Your task to perform on an android device: turn on showing notifications on the lock screen Image 0: 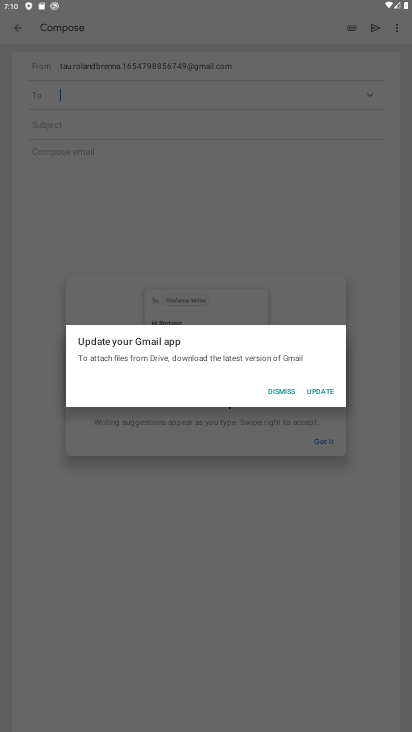
Step 0: press home button
Your task to perform on an android device: turn on showing notifications on the lock screen Image 1: 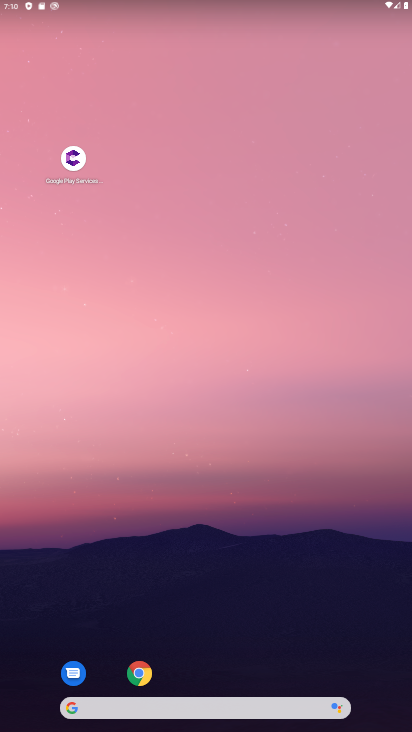
Step 1: drag from (210, 634) to (235, 85)
Your task to perform on an android device: turn on showing notifications on the lock screen Image 2: 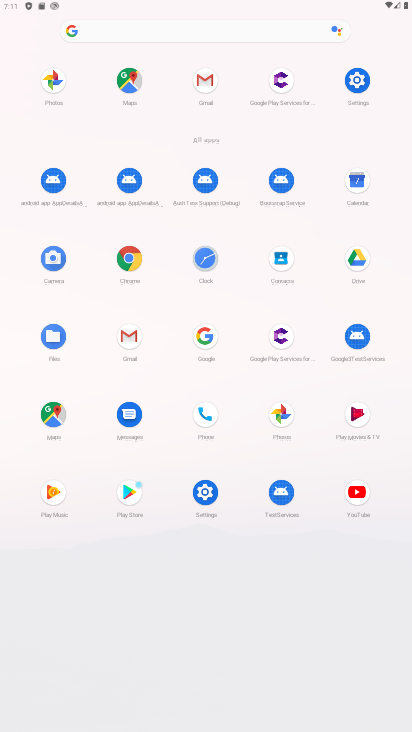
Step 2: click (359, 83)
Your task to perform on an android device: turn on showing notifications on the lock screen Image 3: 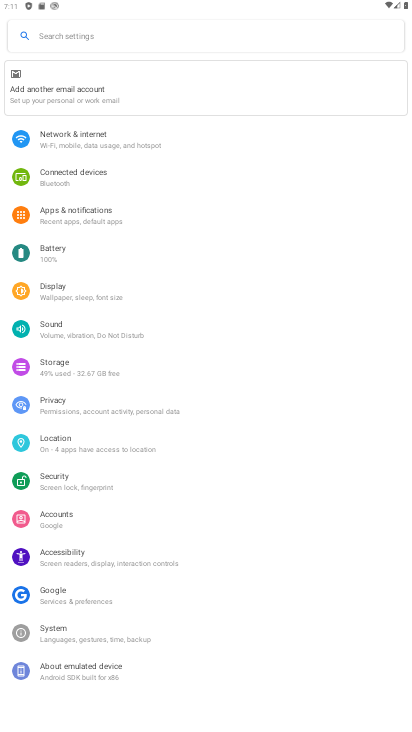
Step 3: click (79, 213)
Your task to perform on an android device: turn on showing notifications on the lock screen Image 4: 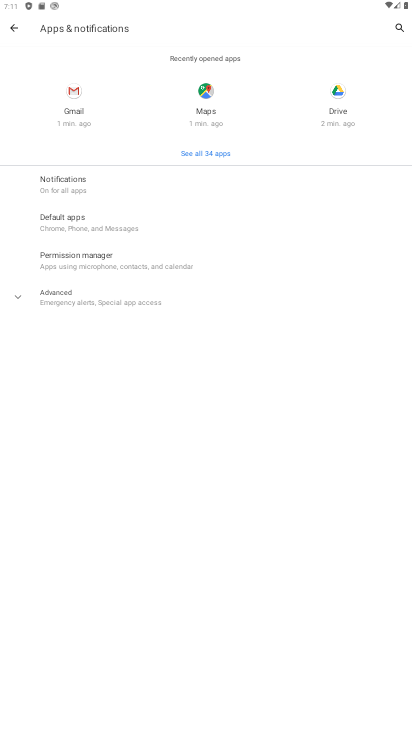
Step 4: click (65, 181)
Your task to perform on an android device: turn on showing notifications on the lock screen Image 5: 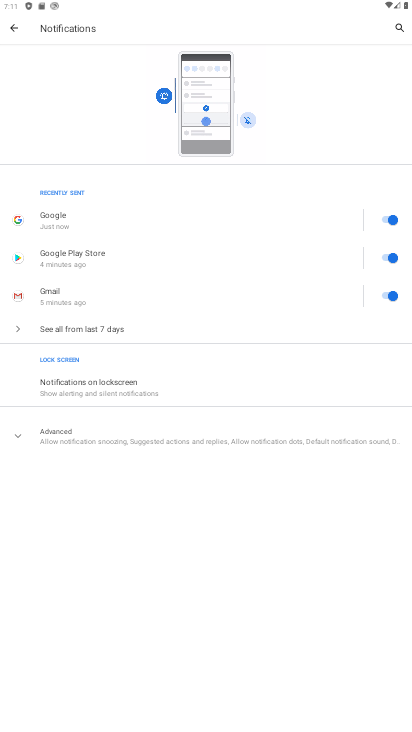
Step 5: click (106, 385)
Your task to perform on an android device: turn on showing notifications on the lock screen Image 6: 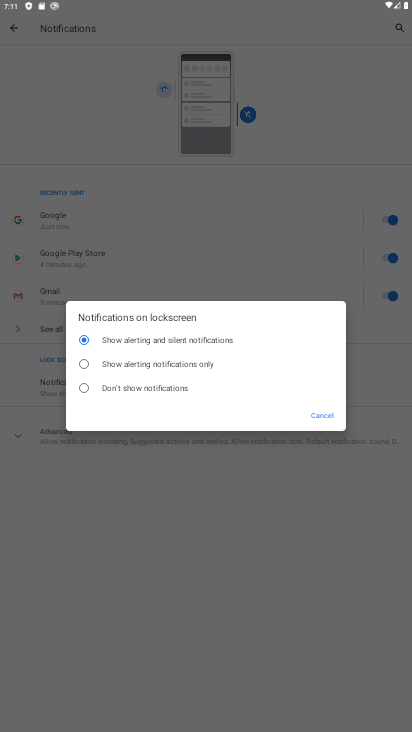
Step 6: click (88, 336)
Your task to perform on an android device: turn on showing notifications on the lock screen Image 7: 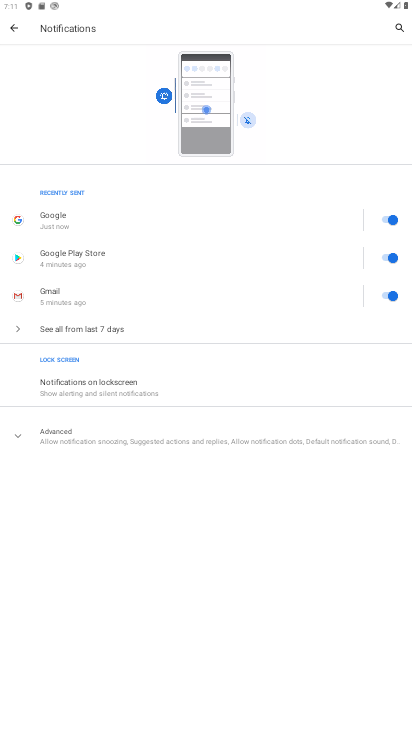
Step 7: task complete